Your task to perform on an android device: install app "Yahoo Mail" Image 0: 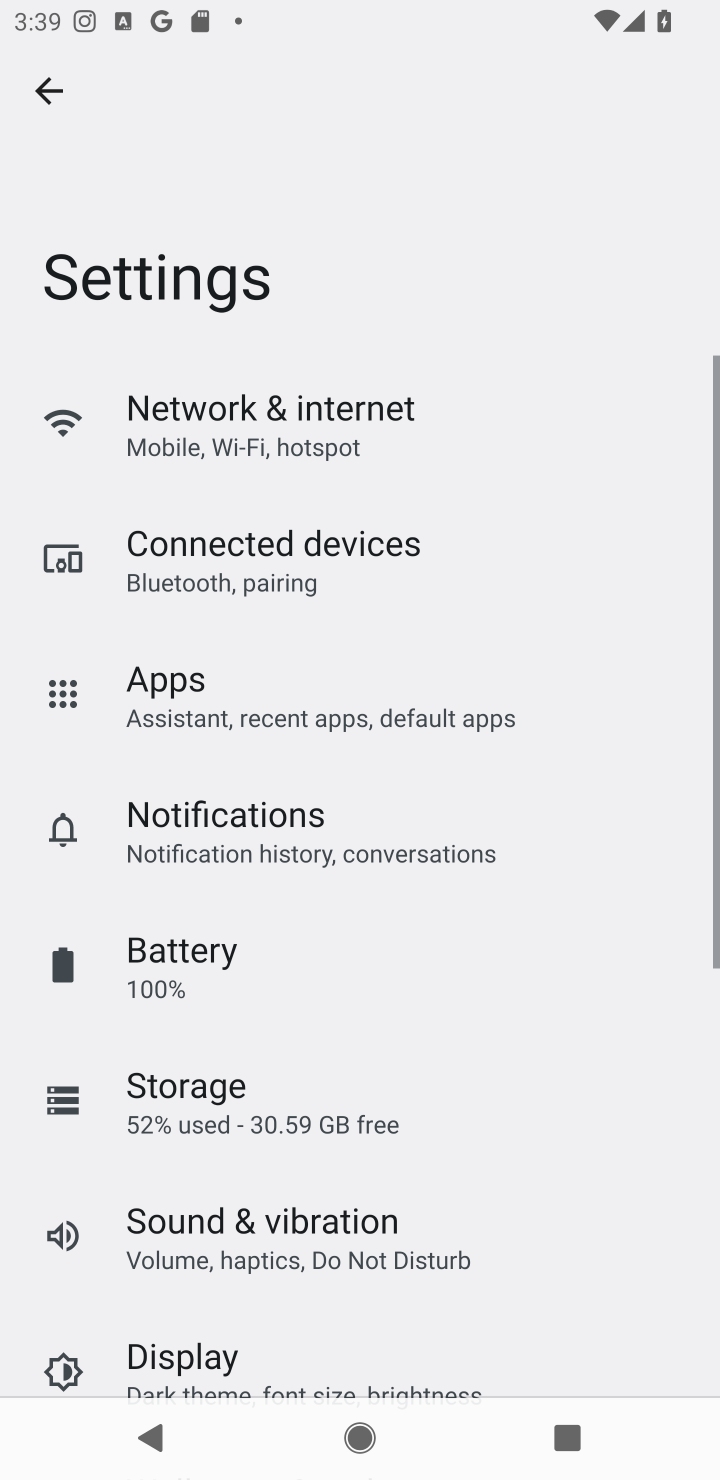
Step 0: press home button
Your task to perform on an android device: install app "Yahoo Mail" Image 1: 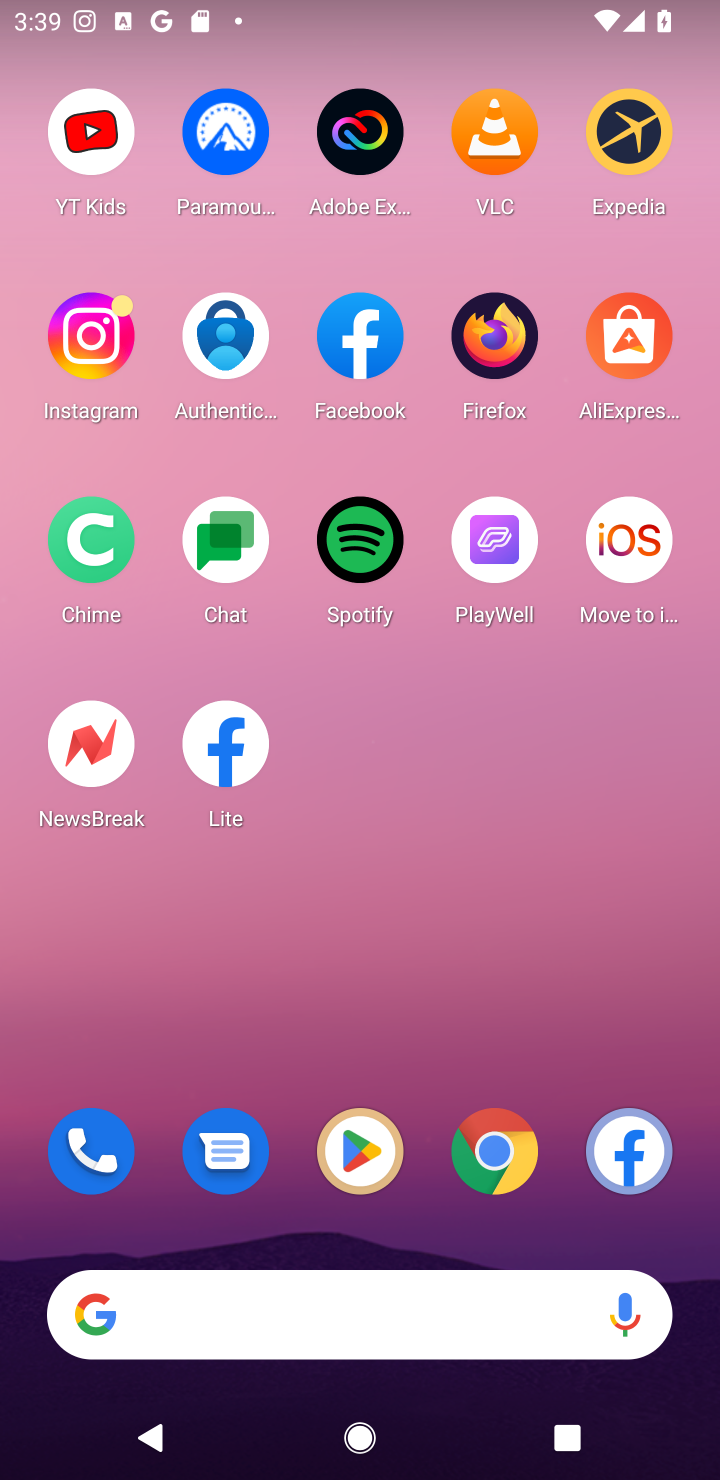
Step 1: press home button
Your task to perform on an android device: install app "Yahoo Mail" Image 2: 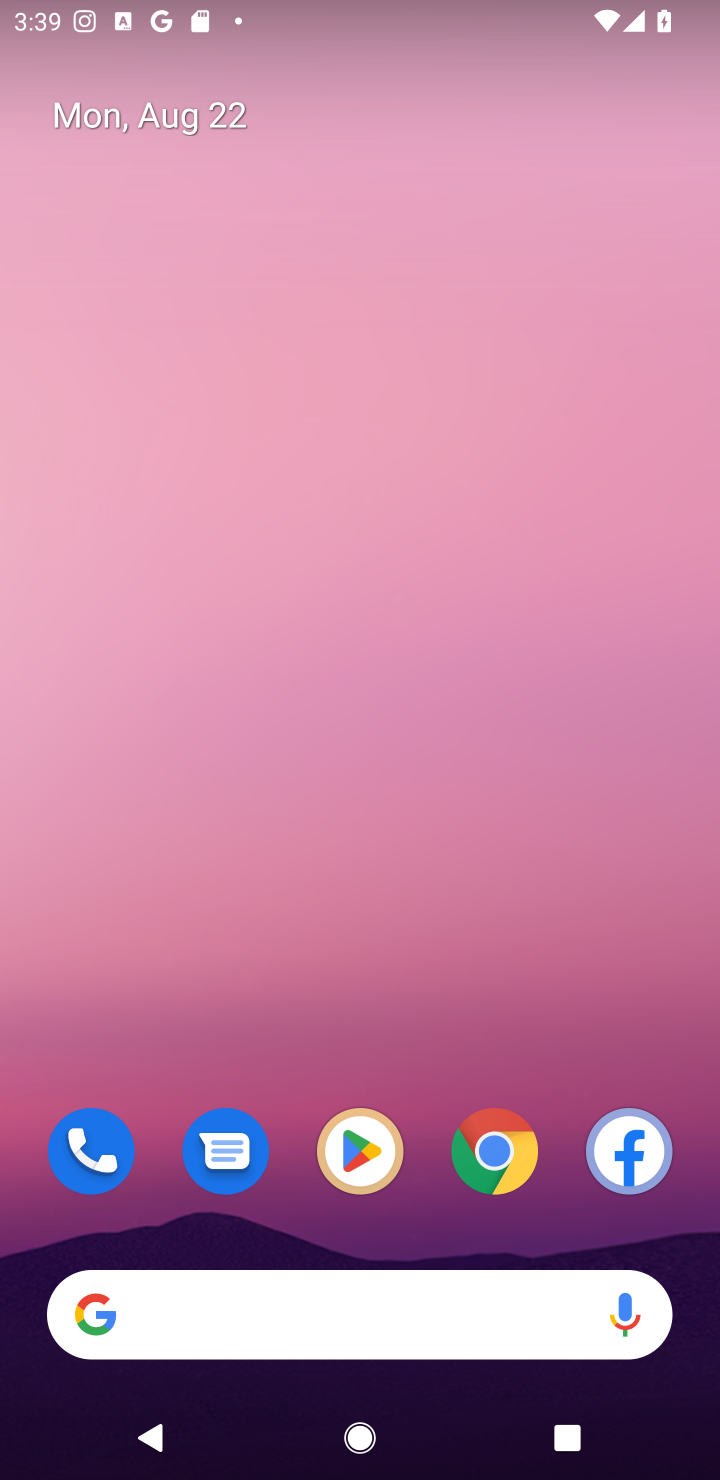
Step 2: click (358, 1153)
Your task to perform on an android device: install app "Yahoo Mail" Image 3: 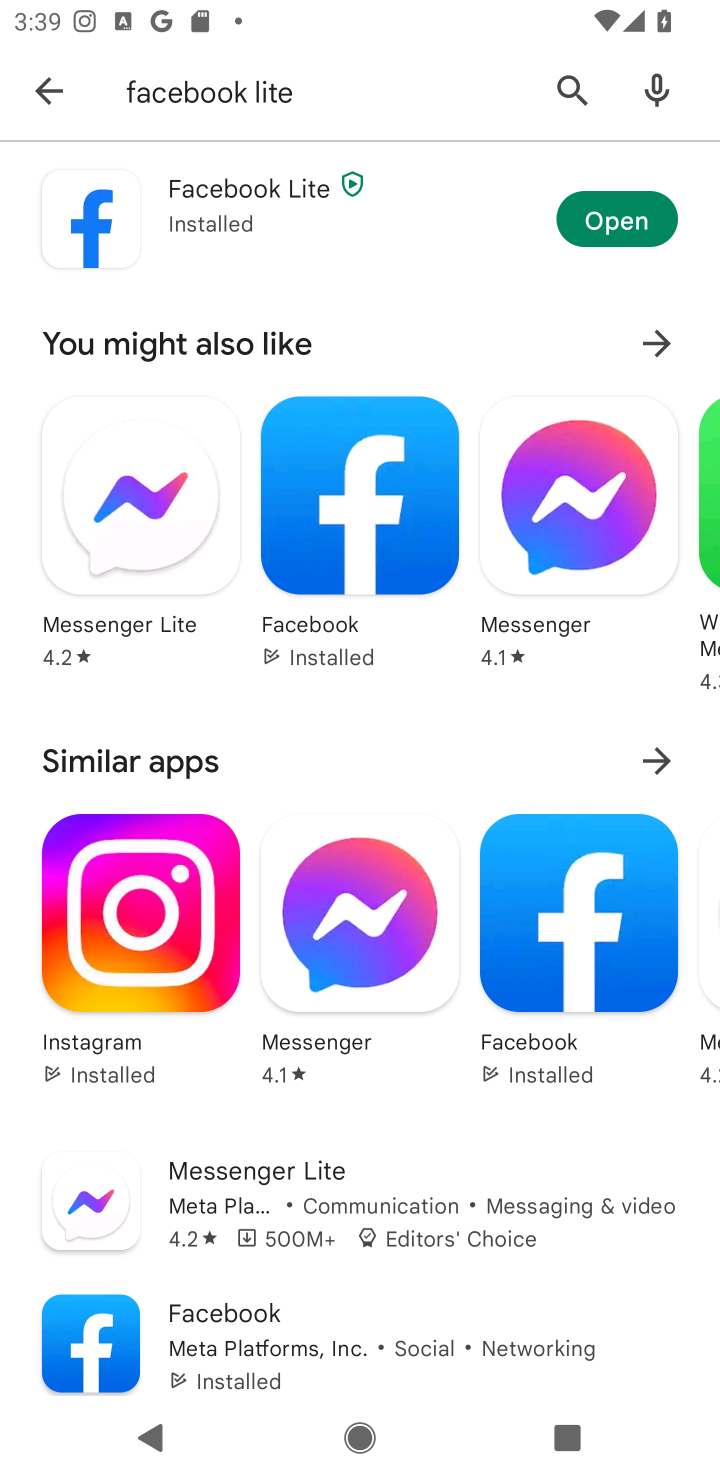
Step 3: click (562, 72)
Your task to perform on an android device: install app "Yahoo Mail" Image 4: 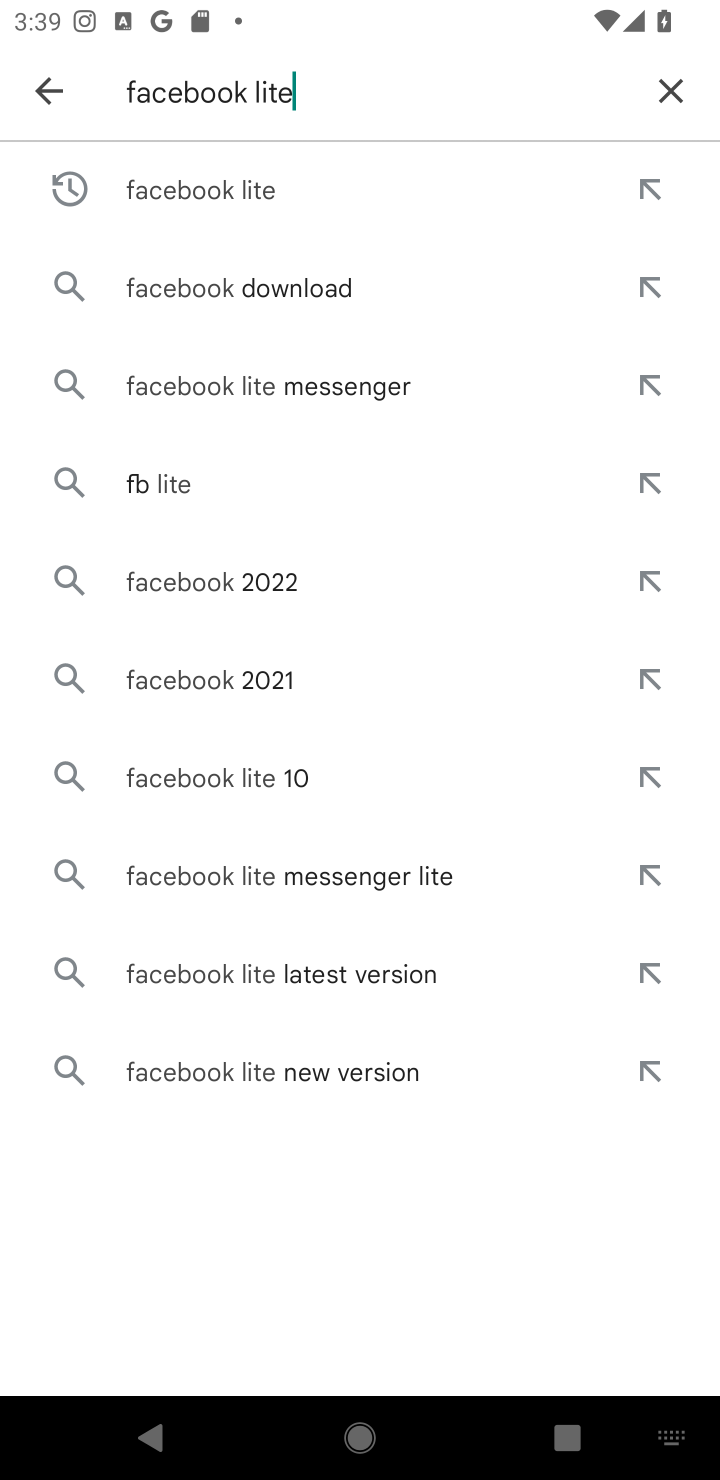
Step 4: click (669, 78)
Your task to perform on an android device: install app "Yahoo Mail" Image 5: 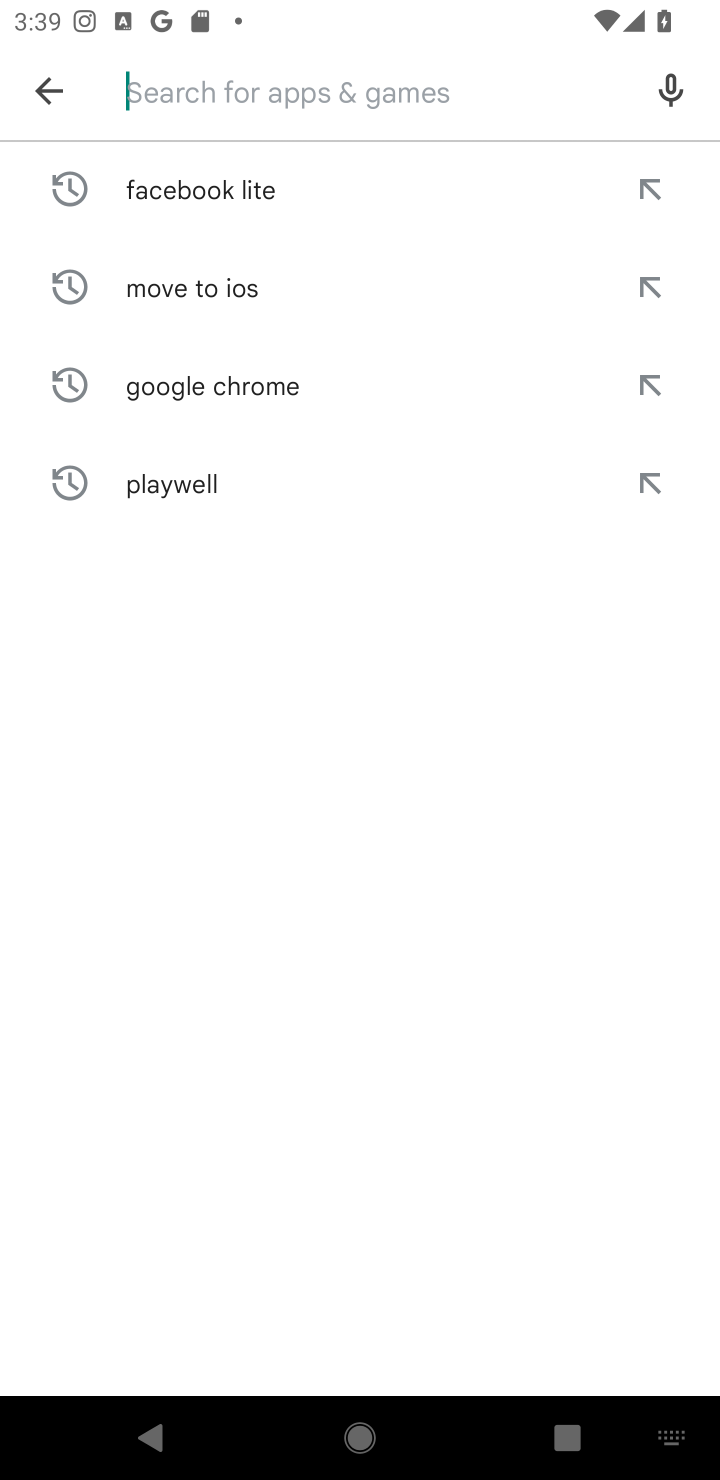
Step 5: type "Yahoo Mail"
Your task to perform on an android device: install app "Yahoo Mail" Image 6: 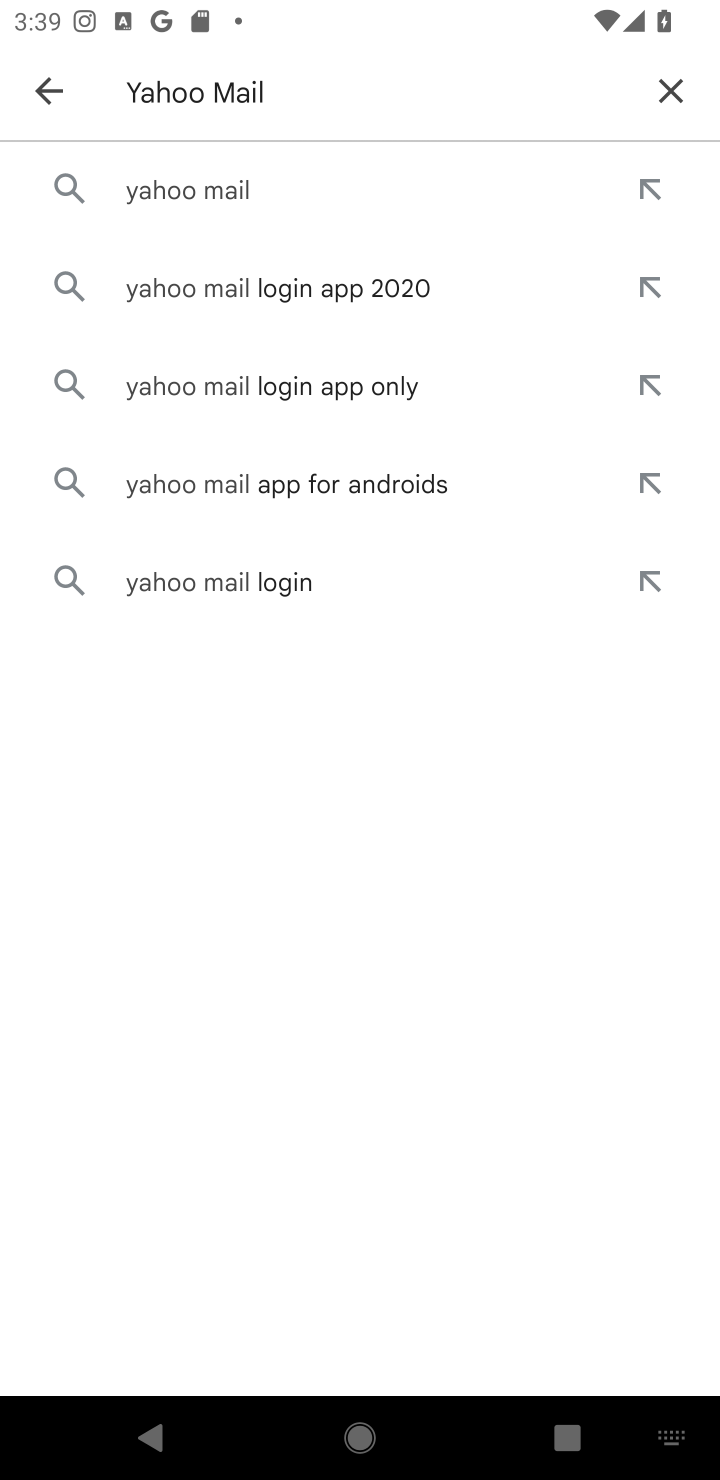
Step 6: click (182, 193)
Your task to perform on an android device: install app "Yahoo Mail" Image 7: 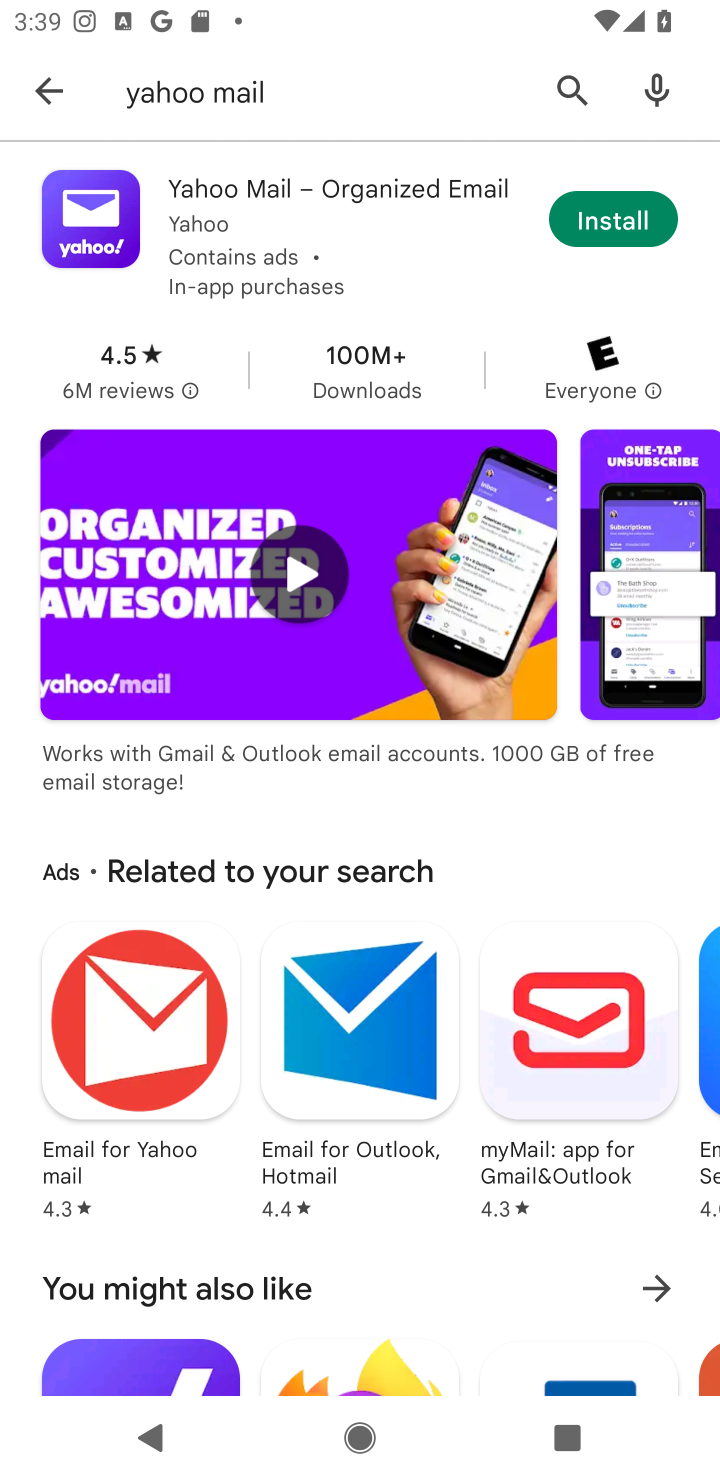
Step 7: click (596, 230)
Your task to perform on an android device: install app "Yahoo Mail" Image 8: 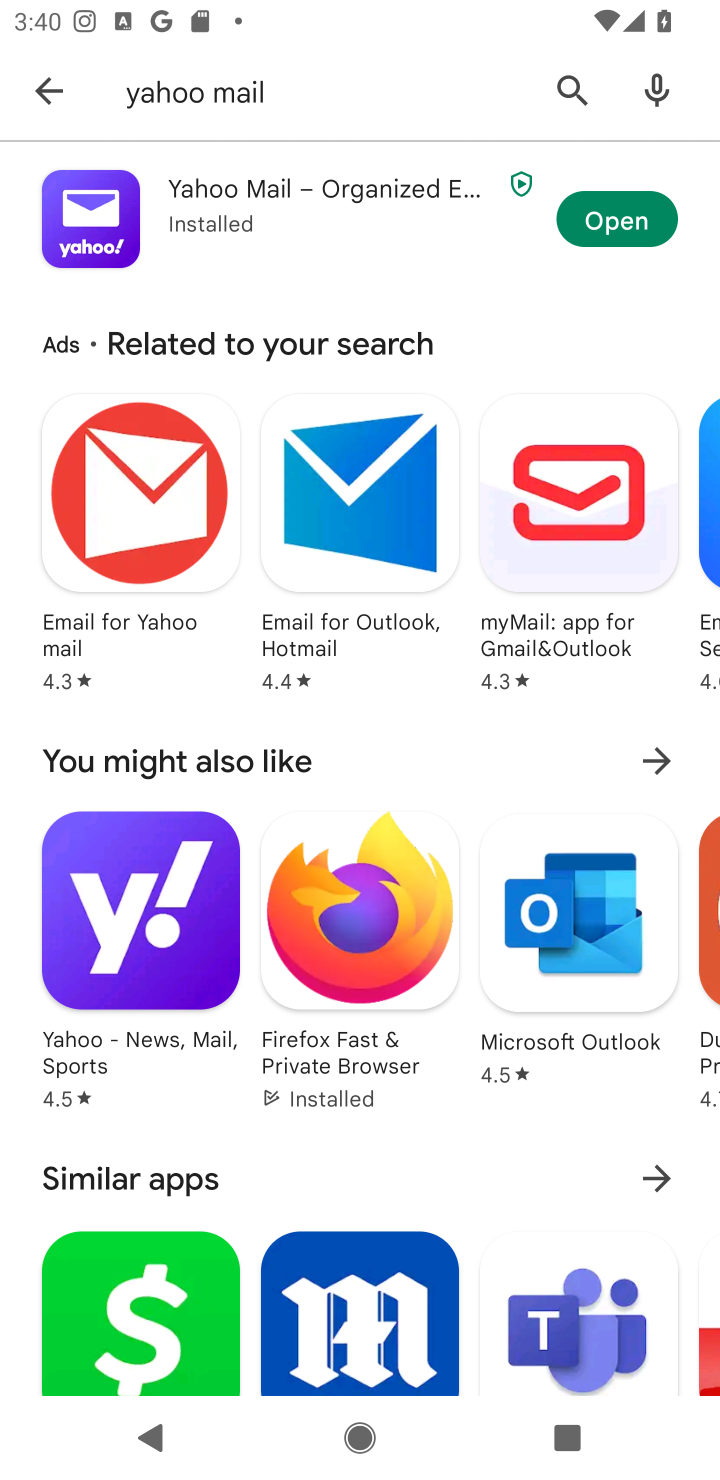
Step 8: task complete